Your task to perform on an android device: turn off javascript in the chrome app Image 0: 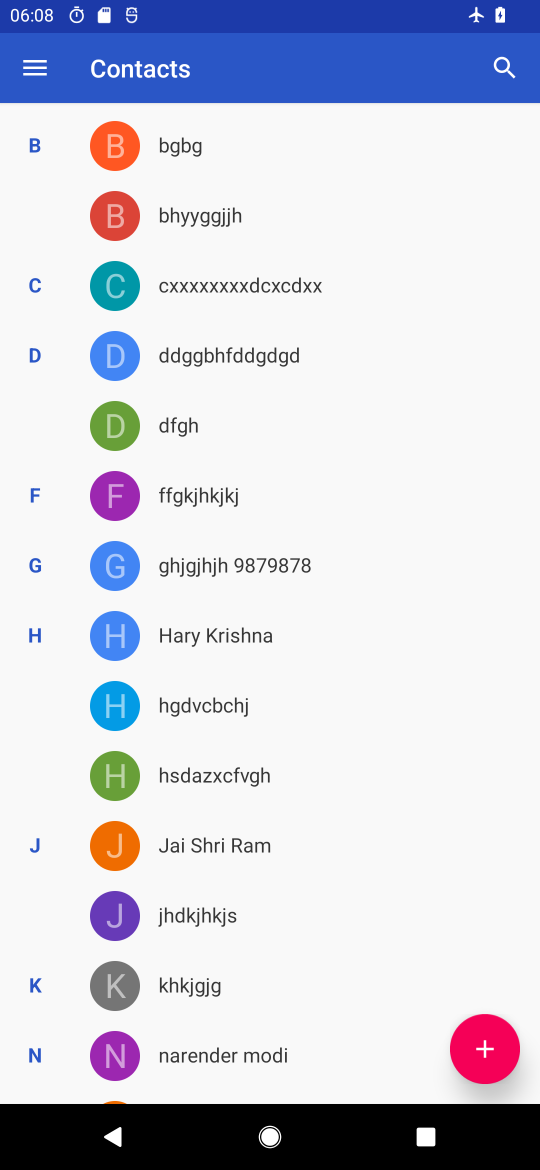
Step 0: press home button
Your task to perform on an android device: turn off javascript in the chrome app Image 1: 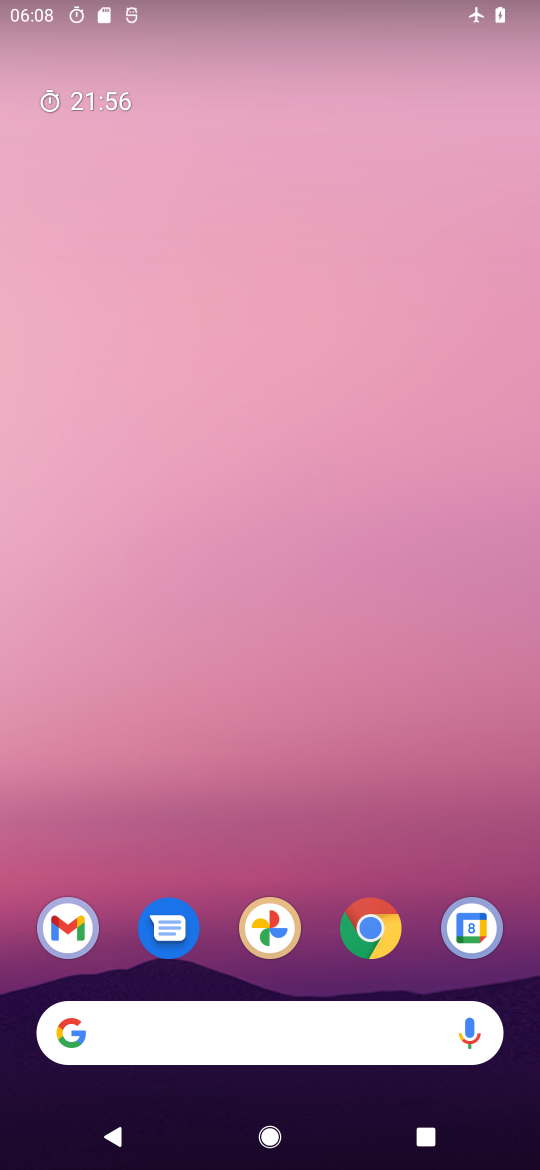
Step 1: click (378, 941)
Your task to perform on an android device: turn off javascript in the chrome app Image 2: 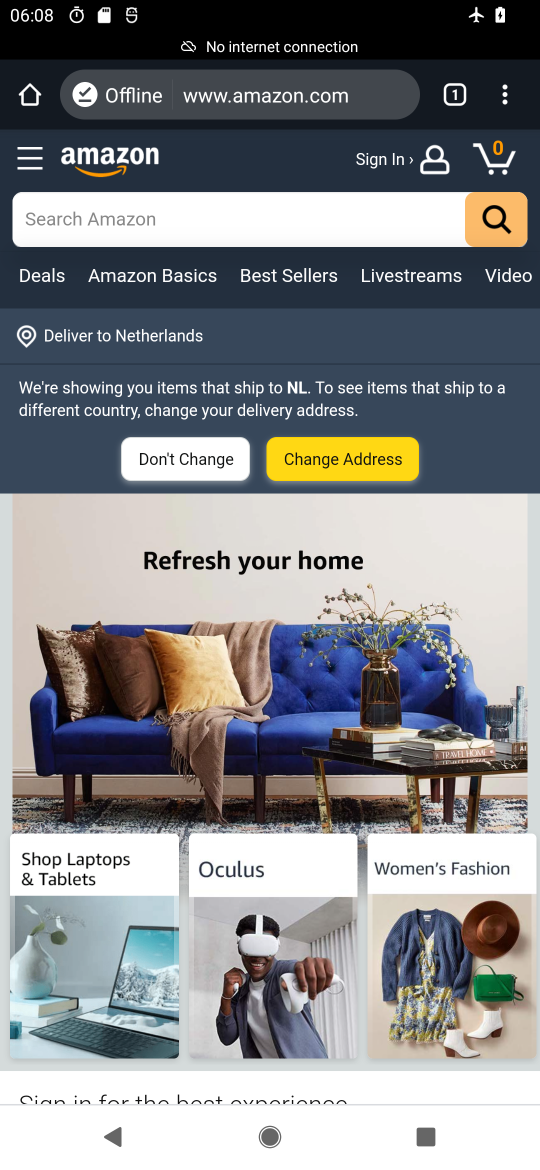
Step 2: click (507, 94)
Your task to perform on an android device: turn off javascript in the chrome app Image 3: 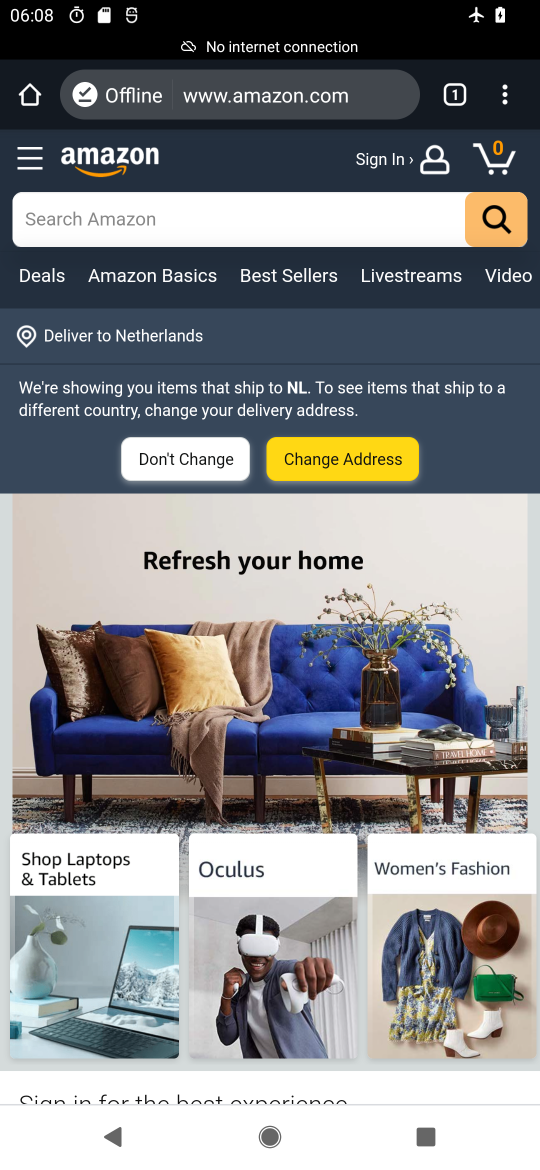
Step 3: click (504, 95)
Your task to perform on an android device: turn off javascript in the chrome app Image 4: 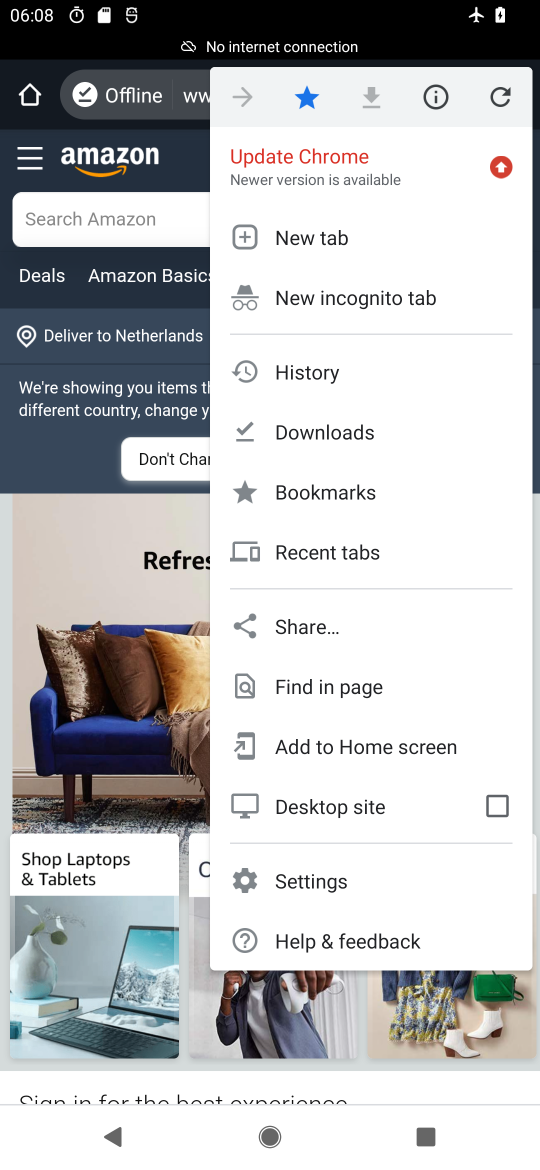
Step 4: click (324, 880)
Your task to perform on an android device: turn off javascript in the chrome app Image 5: 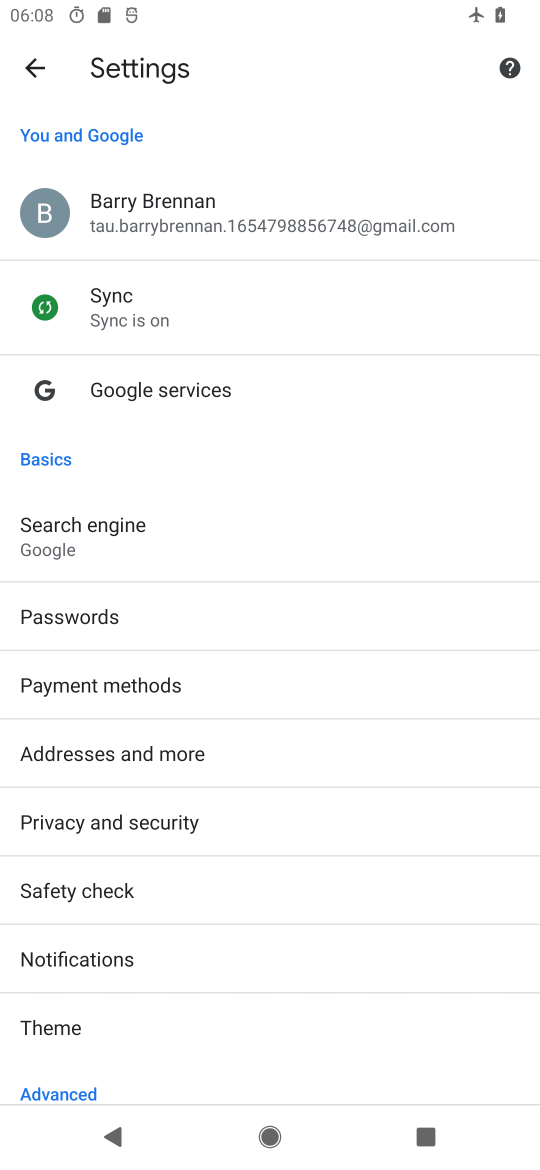
Step 5: drag from (98, 961) to (139, 596)
Your task to perform on an android device: turn off javascript in the chrome app Image 6: 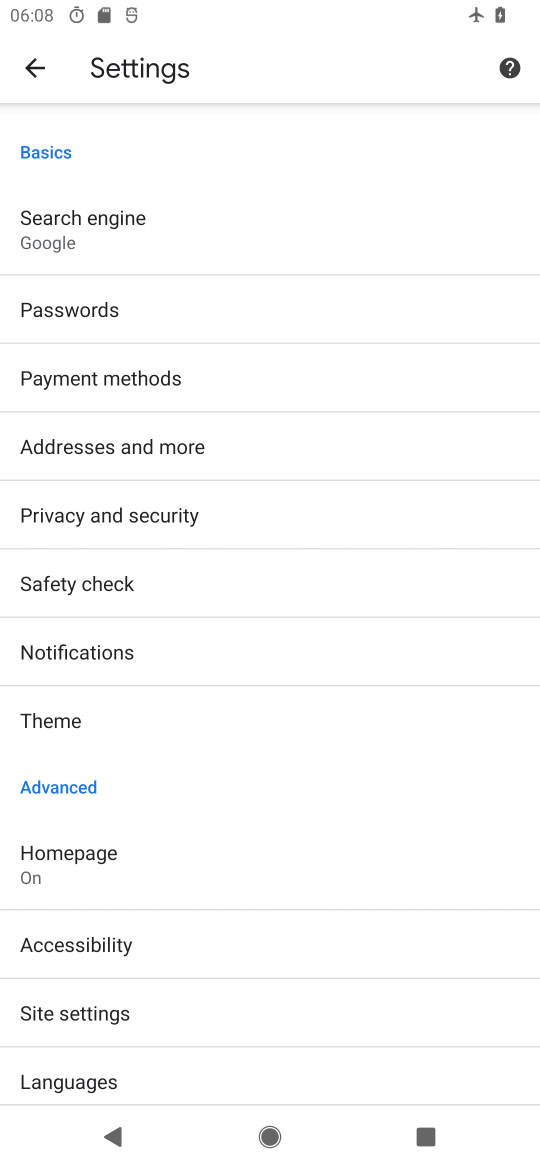
Step 6: click (108, 1005)
Your task to perform on an android device: turn off javascript in the chrome app Image 7: 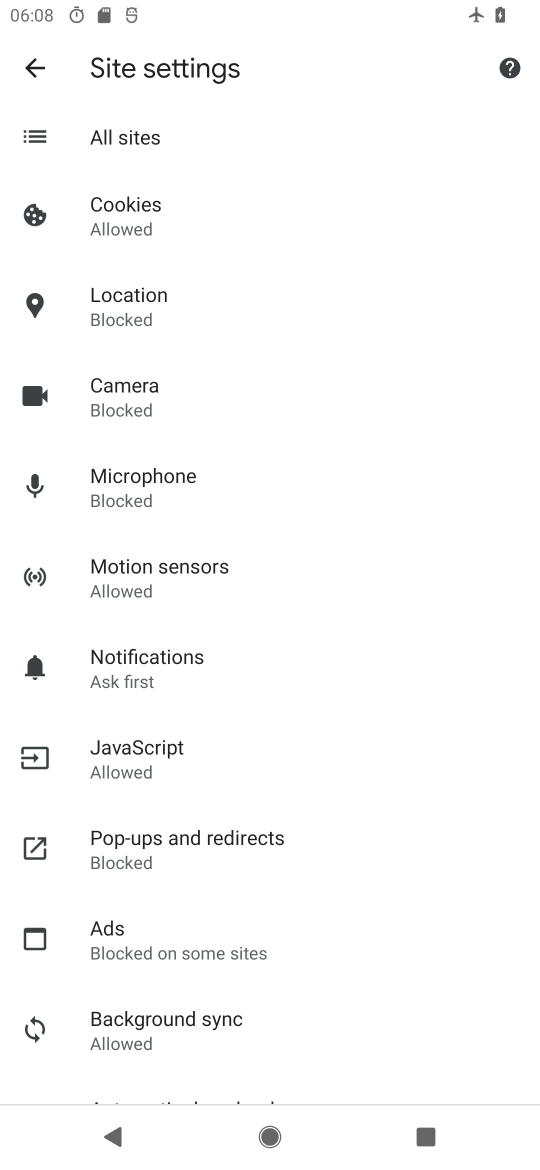
Step 7: click (168, 770)
Your task to perform on an android device: turn off javascript in the chrome app Image 8: 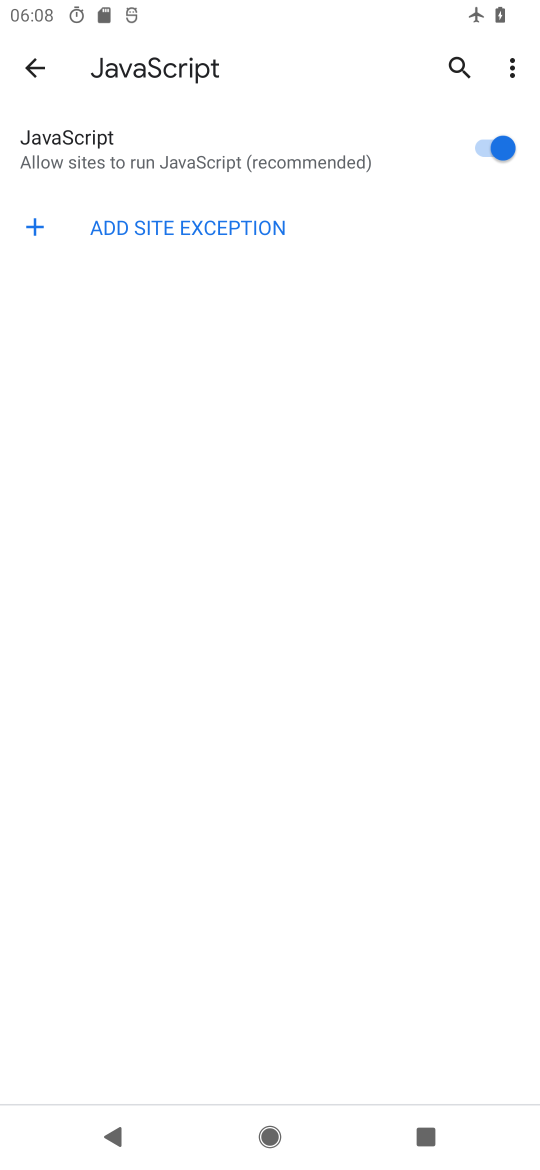
Step 8: click (455, 132)
Your task to perform on an android device: turn off javascript in the chrome app Image 9: 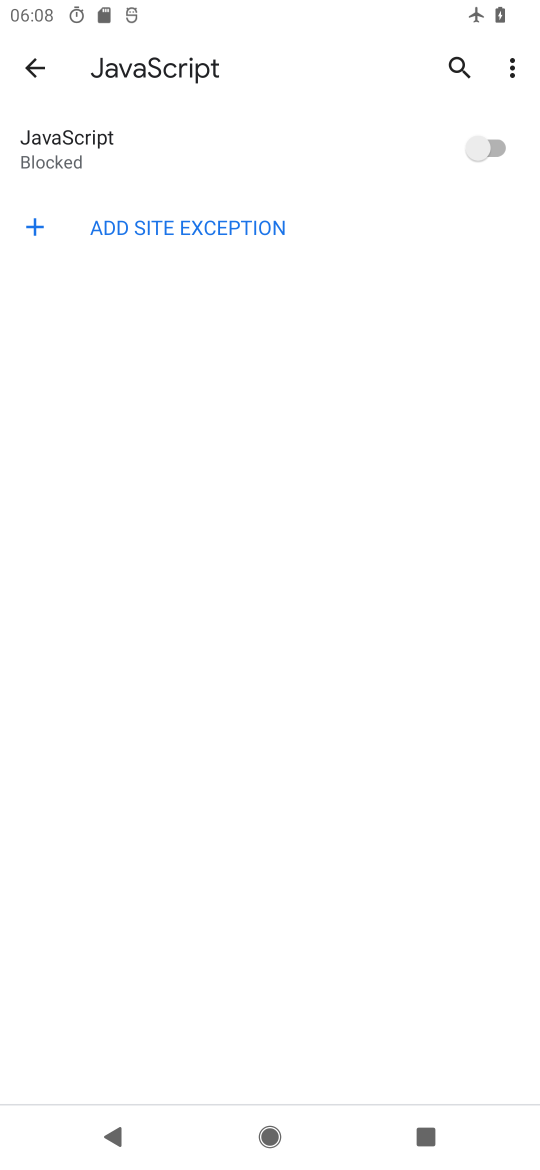
Step 9: task complete